Your task to perform on an android device: Open Youtube and go to "Your channel" Image 0: 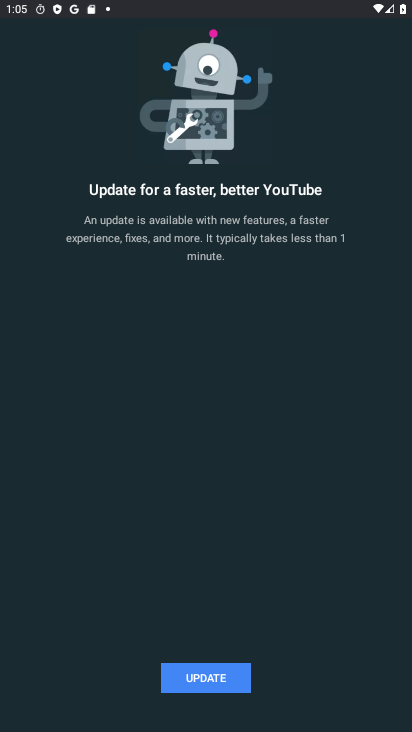
Step 0: click (230, 673)
Your task to perform on an android device: Open Youtube and go to "Your channel" Image 1: 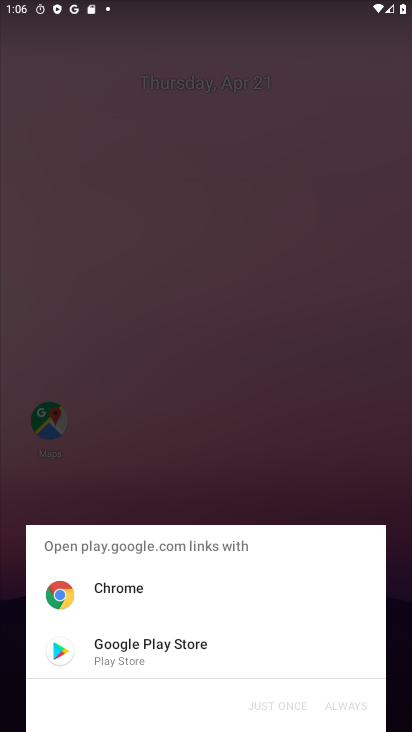
Step 1: drag from (230, 673) to (301, 673)
Your task to perform on an android device: Open Youtube and go to "Your channel" Image 2: 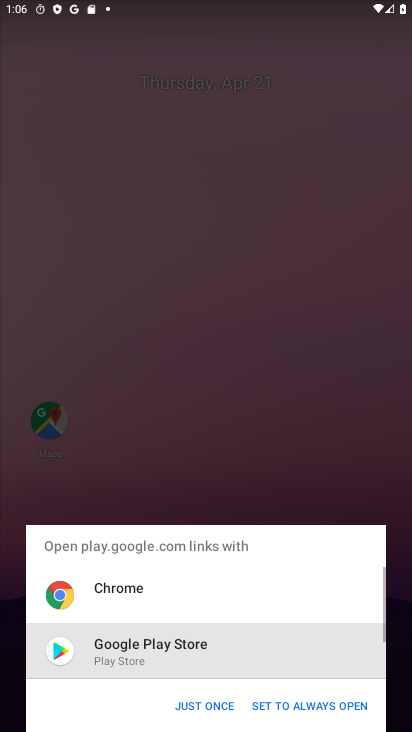
Step 2: click (218, 716)
Your task to perform on an android device: Open Youtube and go to "Your channel" Image 3: 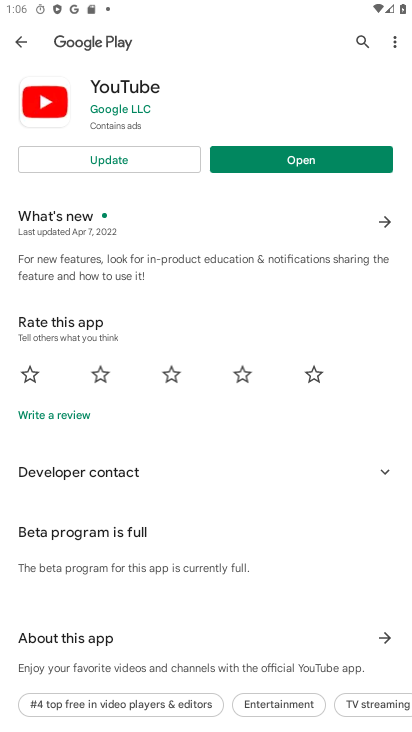
Step 3: click (146, 158)
Your task to perform on an android device: Open Youtube and go to "Your channel" Image 4: 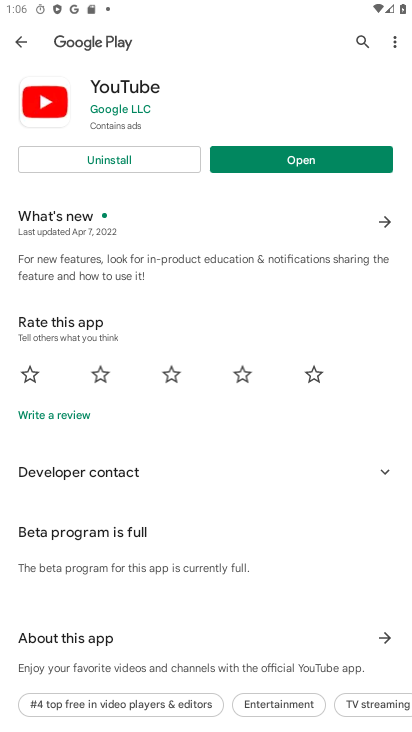
Step 4: click (335, 155)
Your task to perform on an android device: Open Youtube and go to "Your channel" Image 5: 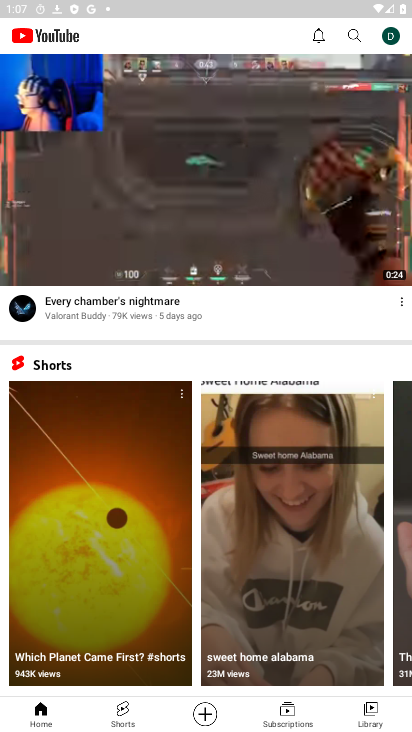
Step 5: click (393, 37)
Your task to perform on an android device: Open Youtube and go to "Your channel" Image 6: 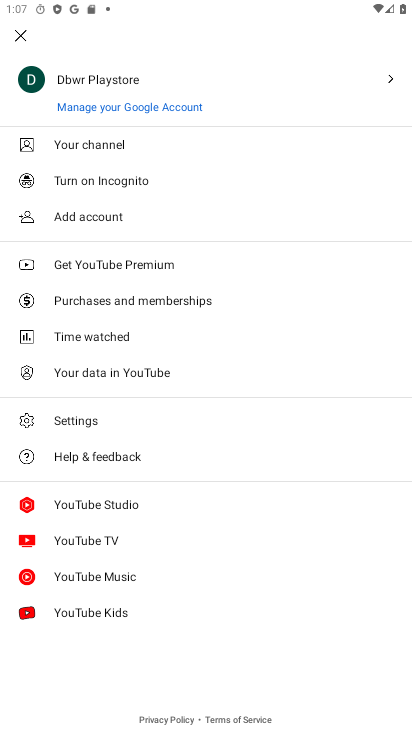
Step 6: click (250, 149)
Your task to perform on an android device: Open Youtube and go to "Your channel" Image 7: 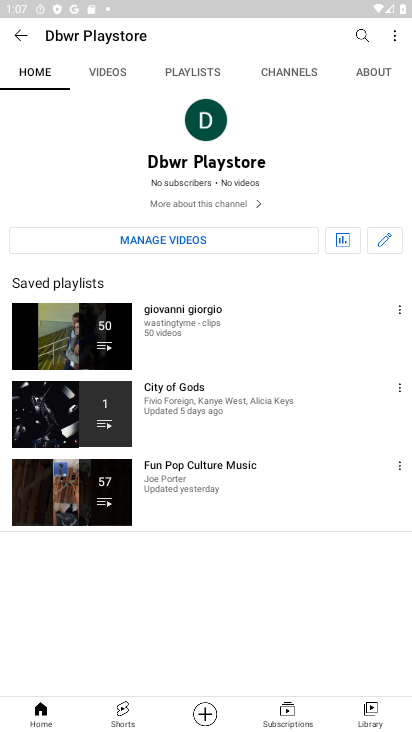
Step 7: task complete